Your task to perform on an android device: Open Chrome and go to the settings page Image 0: 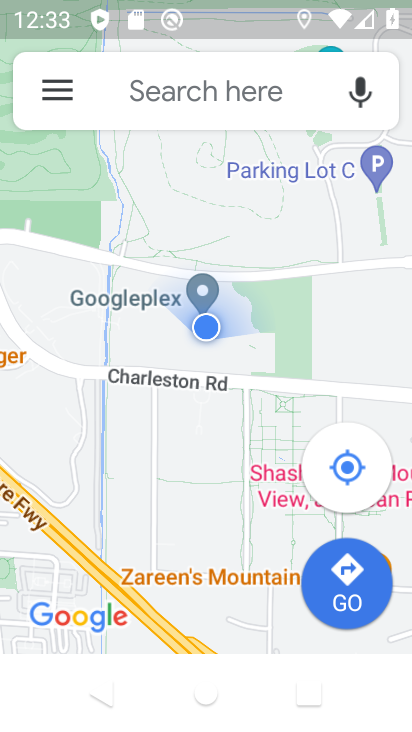
Step 0: press home button
Your task to perform on an android device: Open Chrome and go to the settings page Image 1: 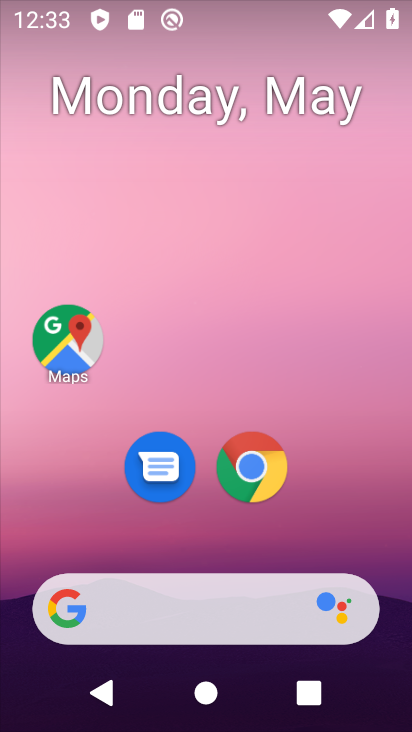
Step 1: click (277, 479)
Your task to perform on an android device: Open Chrome and go to the settings page Image 2: 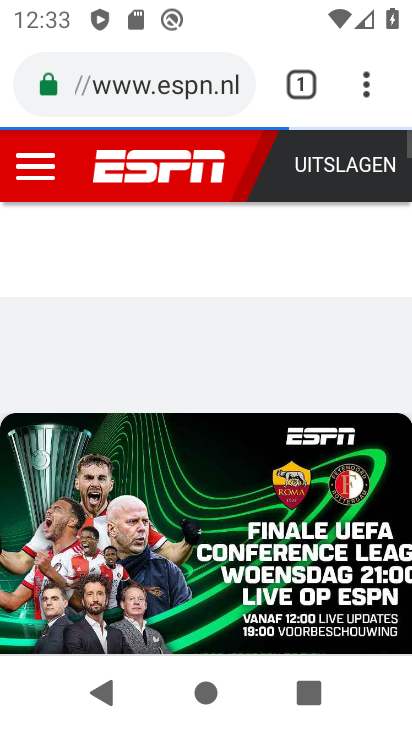
Step 2: task complete